Your task to perform on an android device: Is it going to rain today? Image 0: 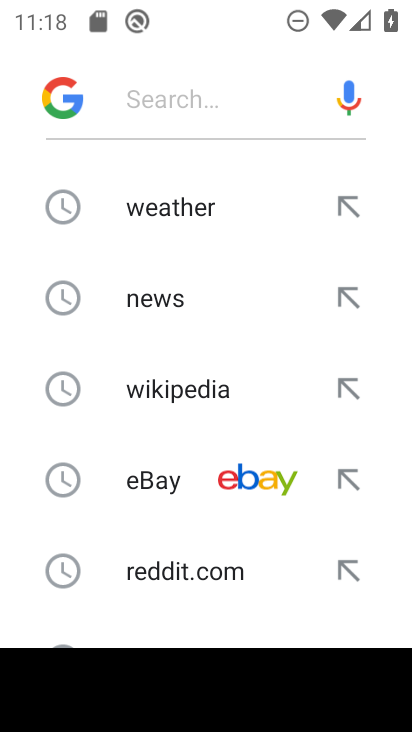
Step 0: press home button
Your task to perform on an android device: Is it going to rain today? Image 1: 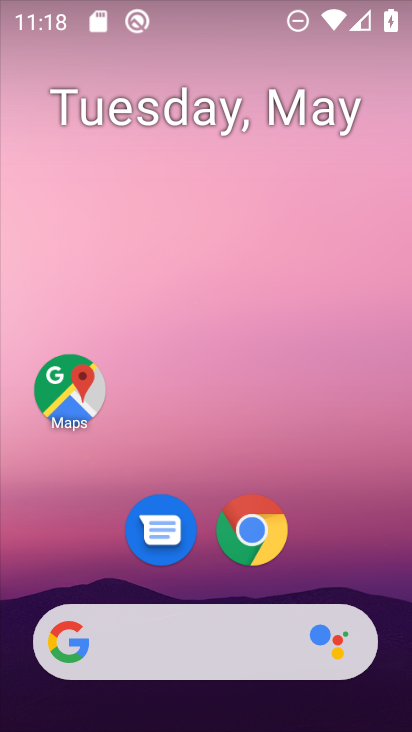
Step 1: drag from (311, 506) to (264, 90)
Your task to perform on an android device: Is it going to rain today? Image 2: 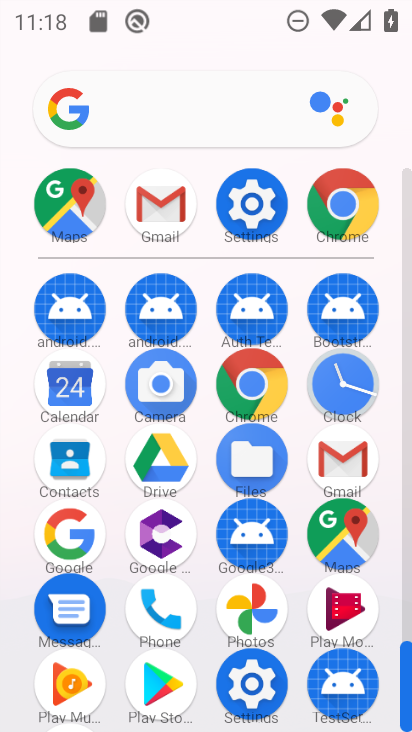
Step 2: click (363, 203)
Your task to perform on an android device: Is it going to rain today? Image 3: 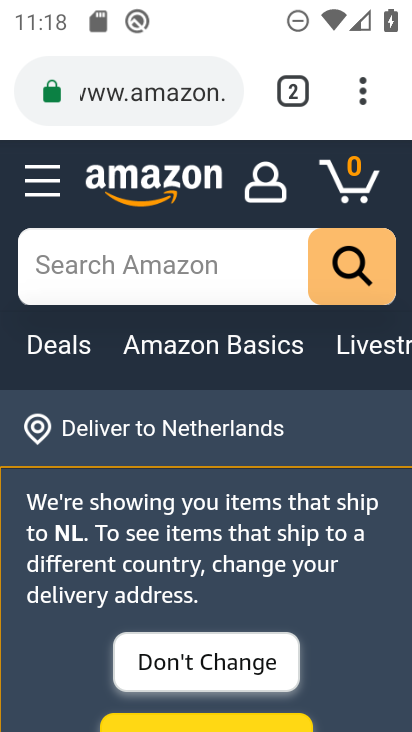
Step 3: click (178, 108)
Your task to perform on an android device: Is it going to rain today? Image 4: 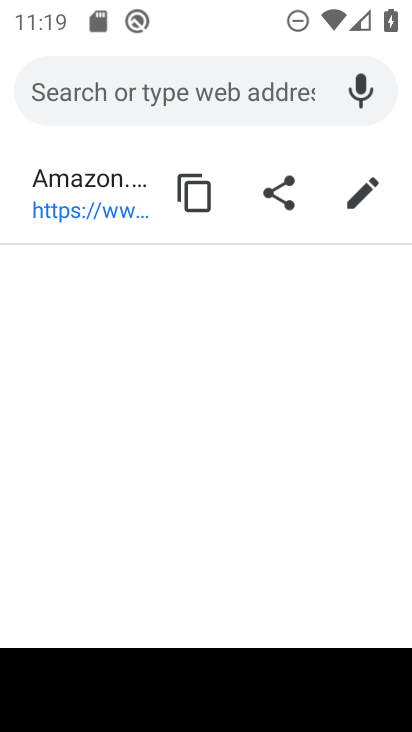
Step 4: type "weather"
Your task to perform on an android device: Is it going to rain today? Image 5: 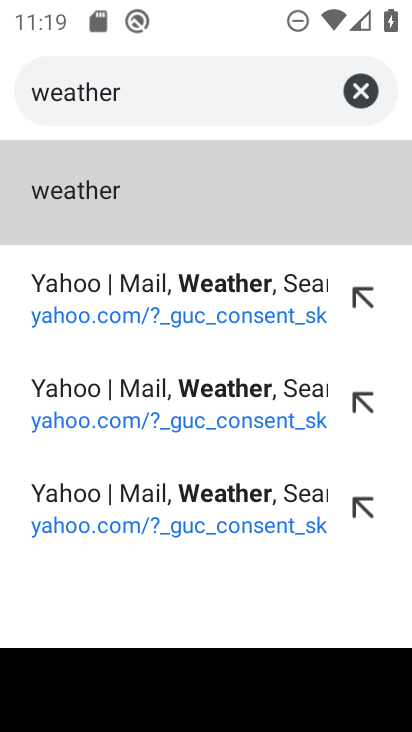
Step 5: click (59, 196)
Your task to perform on an android device: Is it going to rain today? Image 6: 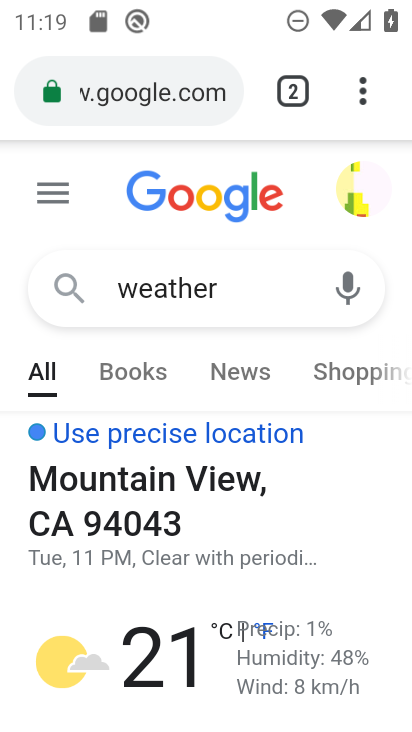
Step 6: task complete